Your task to perform on an android device: Open the stopwatch Image 0: 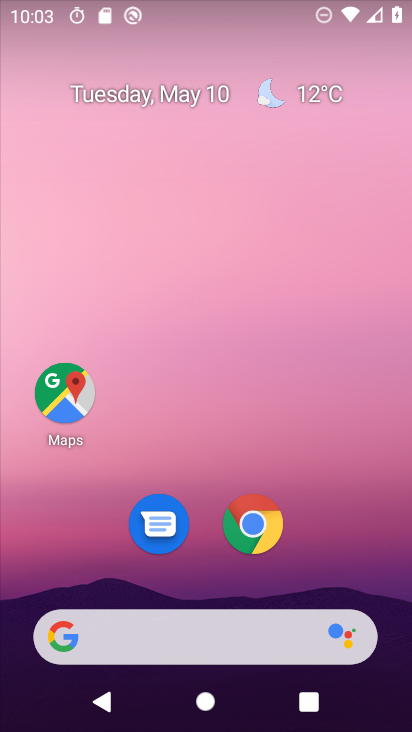
Step 0: drag from (323, 515) to (313, 54)
Your task to perform on an android device: Open the stopwatch Image 1: 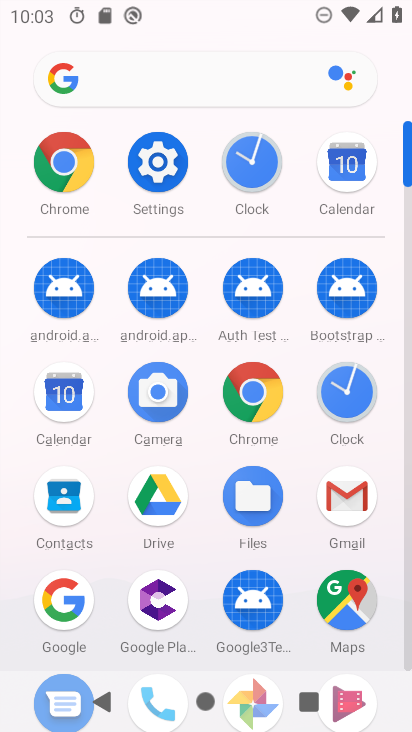
Step 1: click (257, 160)
Your task to perform on an android device: Open the stopwatch Image 2: 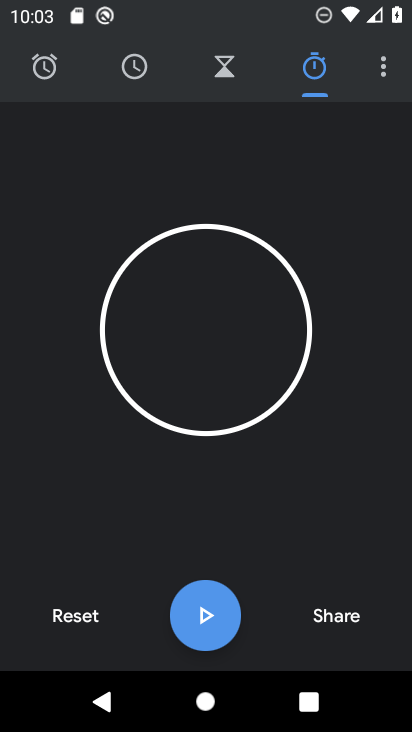
Step 2: task complete